Your task to perform on an android device: open app "ZOOM Cloud Meetings" (install if not already installed), go to login, and select forgot password Image 0: 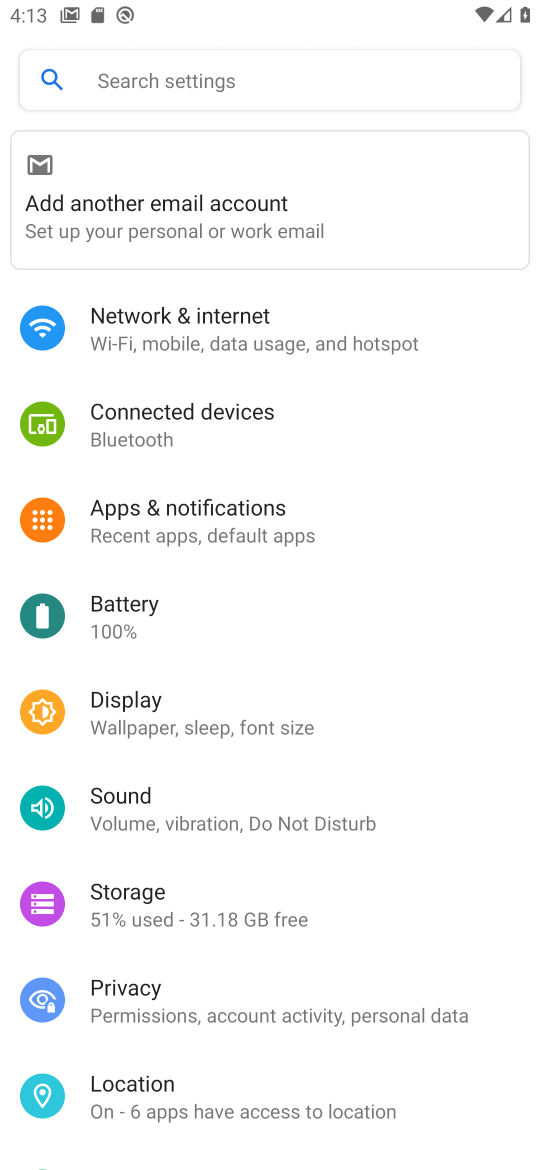
Step 0: press back button
Your task to perform on an android device: open app "ZOOM Cloud Meetings" (install if not already installed), go to login, and select forgot password Image 1: 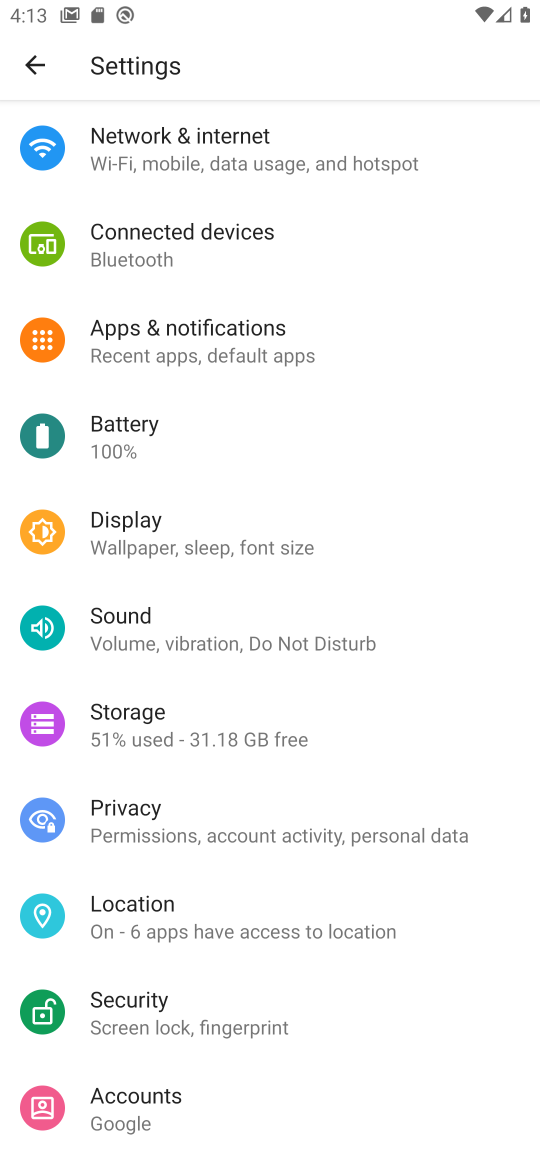
Step 1: press home button
Your task to perform on an android device: open app "ZOOM Cloud Meetings" (install if not already installed), go to login, and select forgot password Image 2: 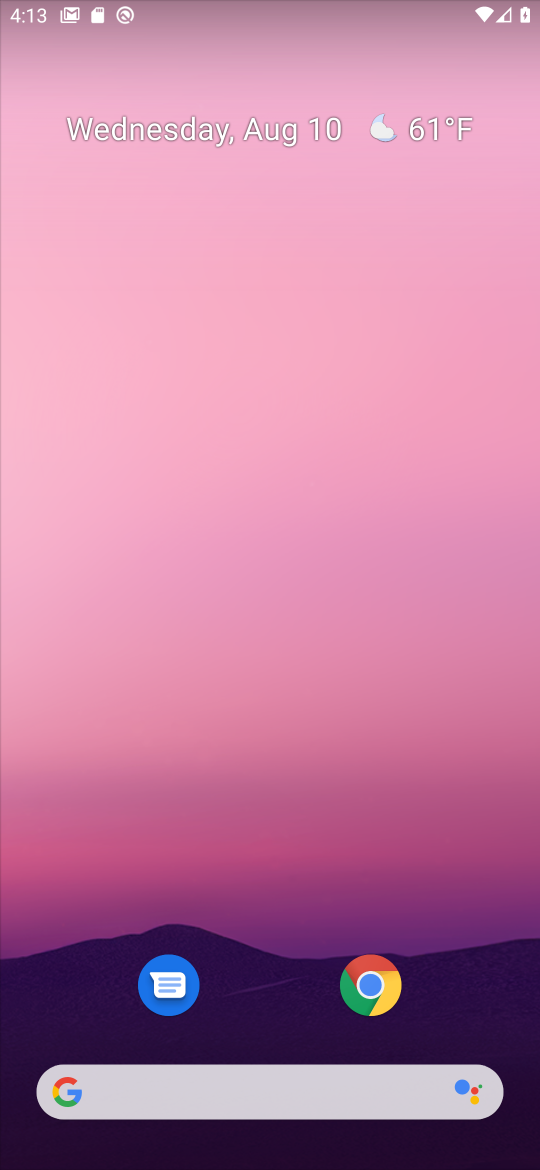
Step 2: drag from (253, 998) to (311, 119)
Your task to perform on an android device: open app "ZOOM Cloud Meetings" (install if not already installed), go to login, and select forgot password Image 3: 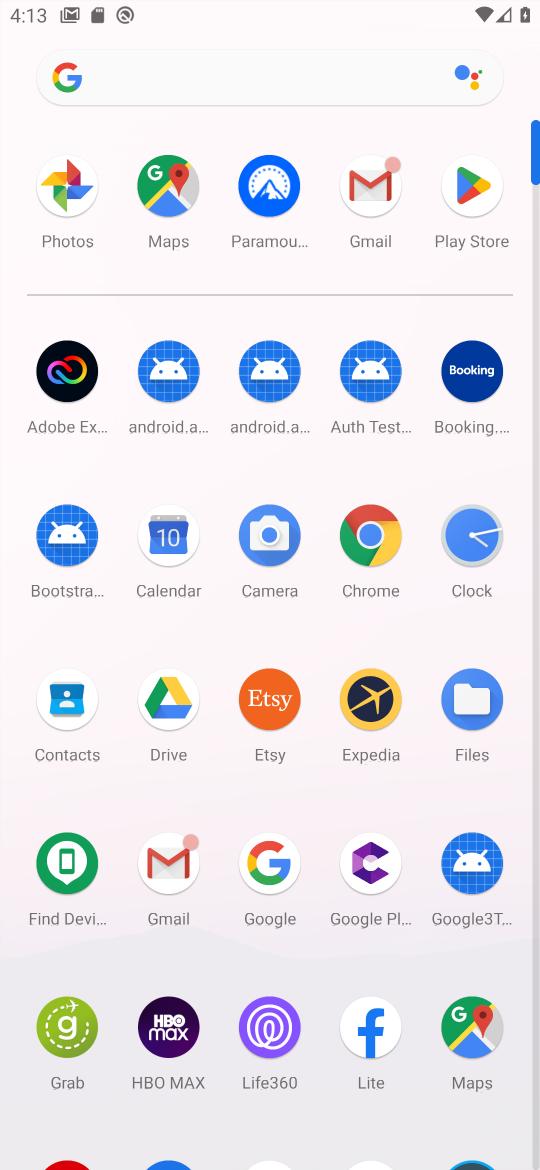
Step 3: click (472, 175)
Your task to perform on an android device: open app "ZOOM Cloud Meetings" (install if not already installed), go to login, and select forgot password Image 4: 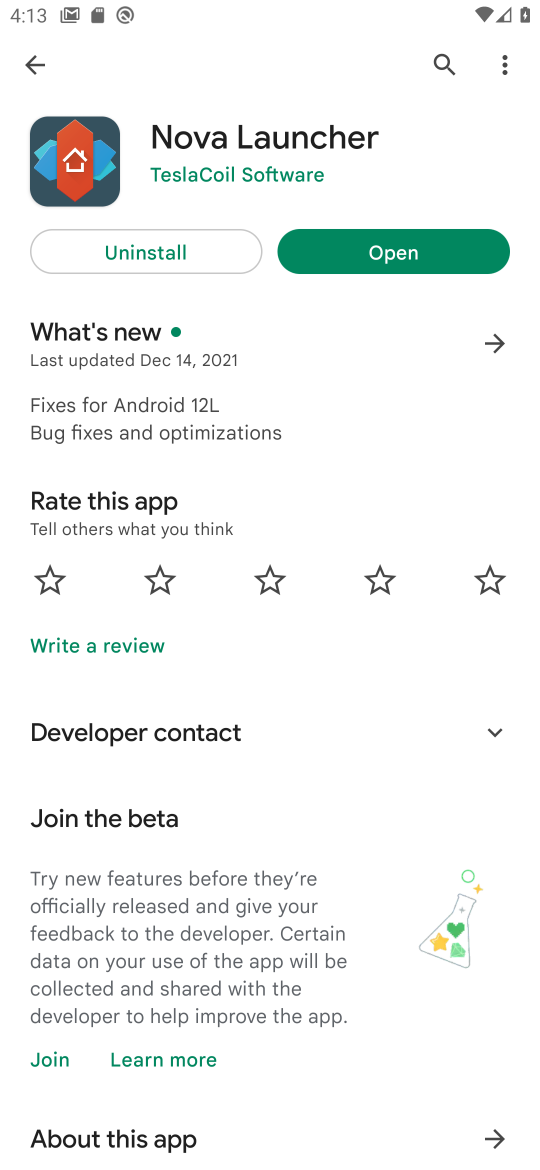
Step 4: click (27, 70)
Your task to perform on an android device: open app "ZOOM Cloud Meetings" (install if not already installed), go to login, and select forgot password Image 5: 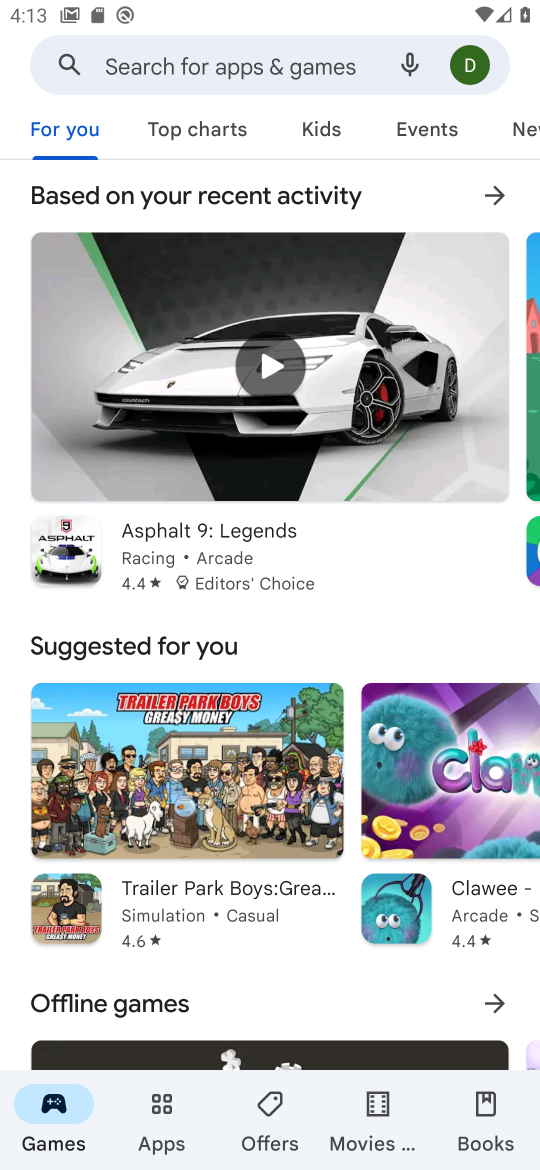
Step 5: click (187, 55)
Your task to perform on an android device: open app "ZOOM Cloud Meetings" (install if not already installed), go to login, and select forgot password Image 6: 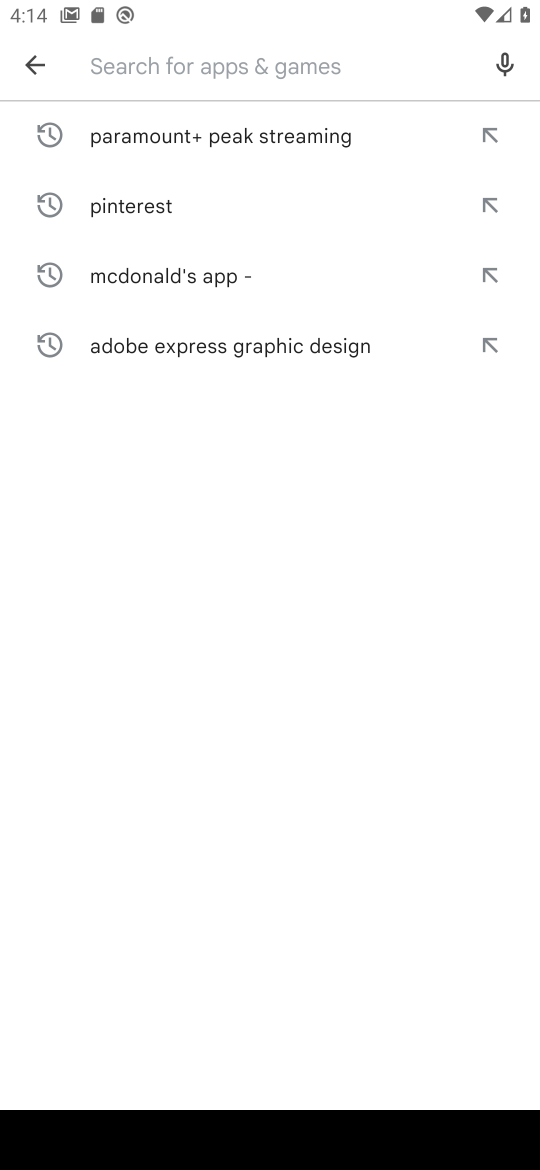
Step 6: type "ZOOM Cloud Meeting"
Your task to perform on an android device: open app "ZOOM Cloud Meetings" (install if not already installed), go to login, and select forgot password Image 7: 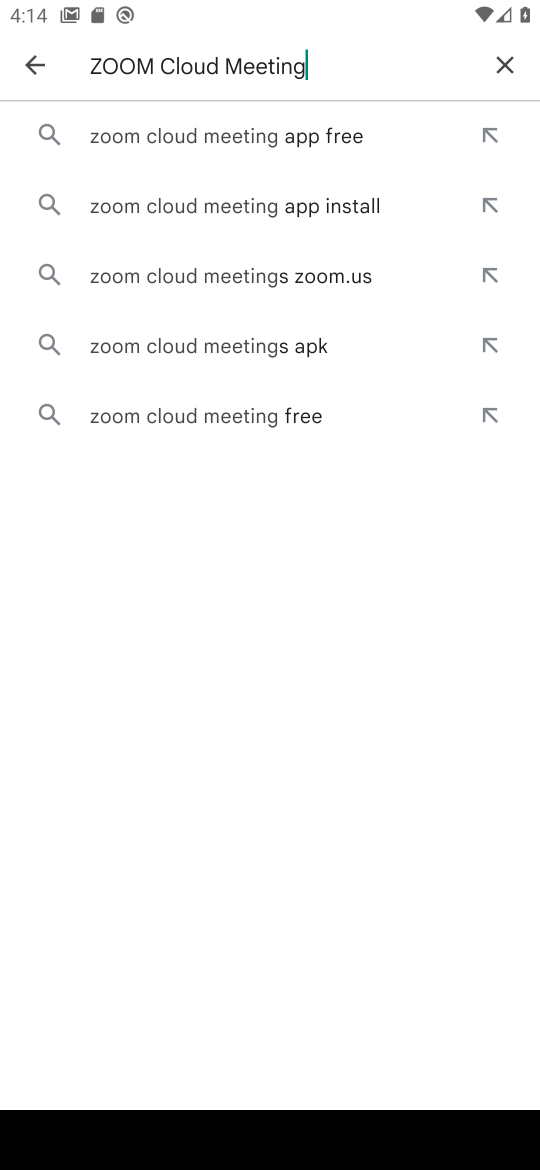
Step 7: click (276, 146)
Your task to perform on an android device: open app "ZOOM Cloud Meetings" (install if not already installed), go to login, and select forgot password Image 8: 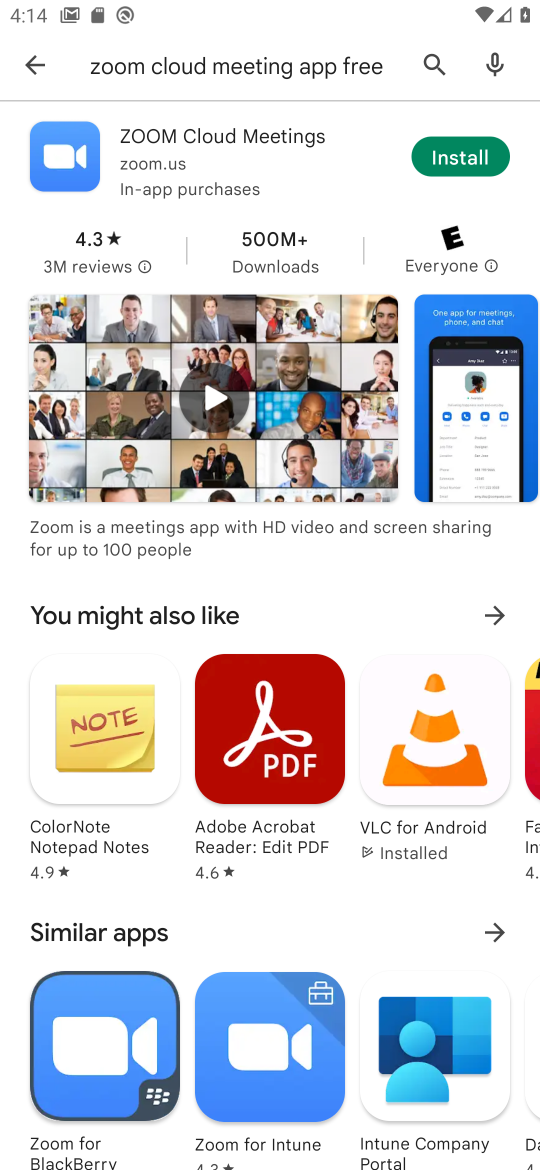
Step 8: click (447, 158)
Your task to perform on an android device: open app "ZOOM Cloud Meetings" (install if not already installed), go to login, and select forgot password Image 9: 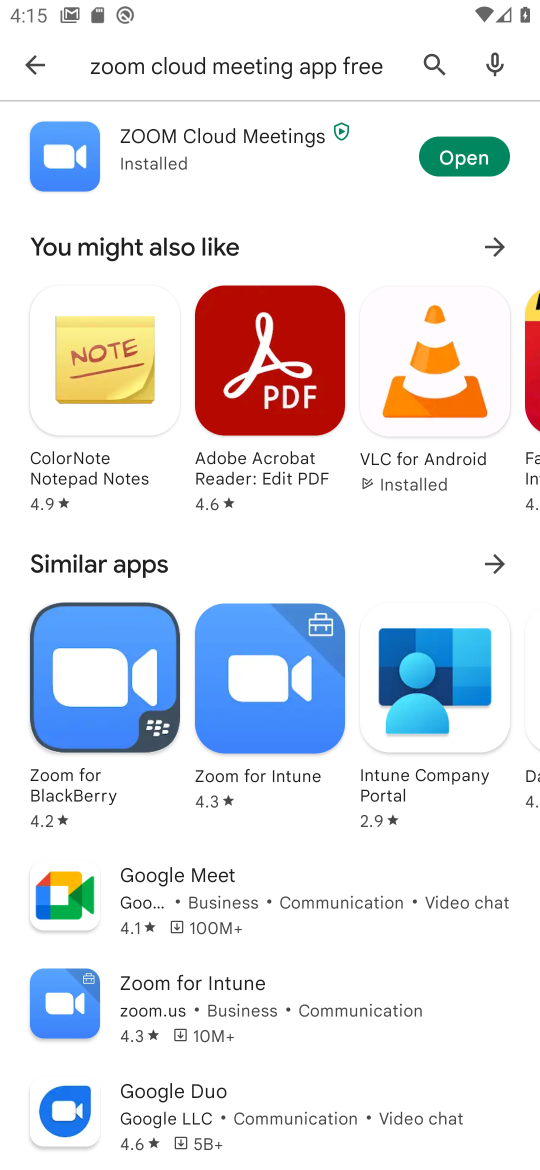
Step 9: click (478, 147)
Your task to perform on an android device: open app "ZOOM Cloud Meetings" (install if not already installed), go to login, and select forgot password Image 10: 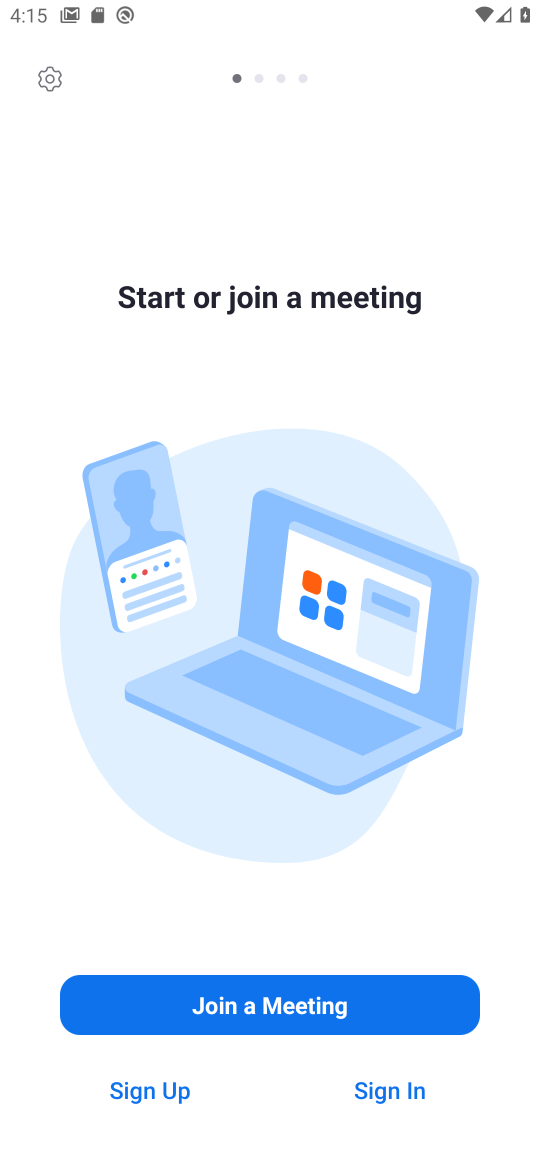
Step 10: click (392, 1084)
Your task to perform on an android device: open app "ZOOM Cloud Meetings" (install if not already installed), go to login, and select forgot password Image 11: 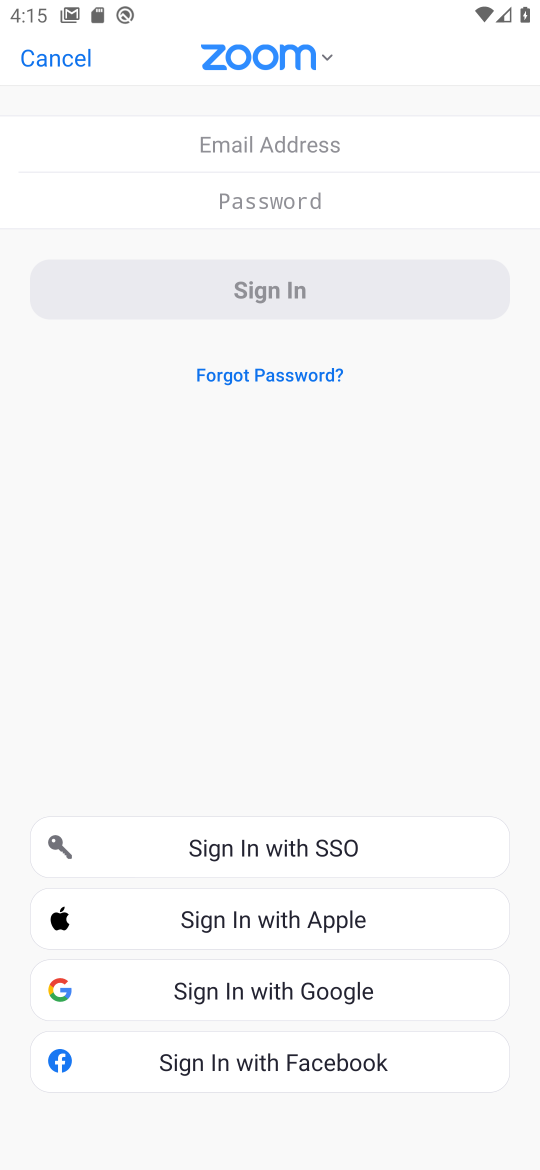
Step 11: click (286, 374)
Your task to perform on an android device: open app "ZOOM Cloud Meetings" (install if not already installed), go to login, and select forgot password Image 12: 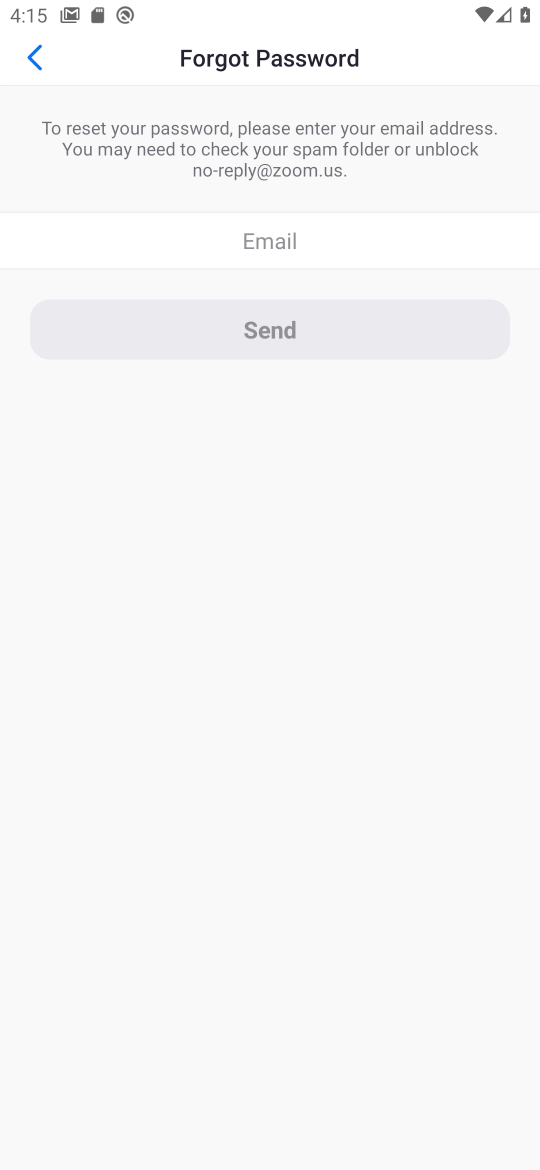
Step 12: task complete